Your task to perform on an android device: What's the weather today? Image 0: 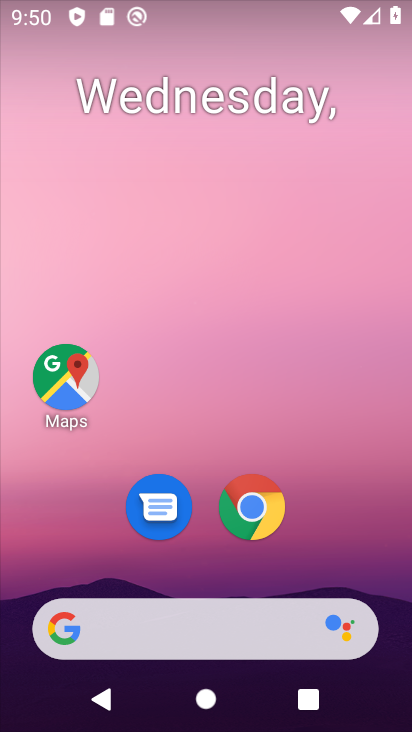
Step 0: drag from (237, 670) to (209, 197)
Your task to perform on an android device: What's the weather today? Image 1: 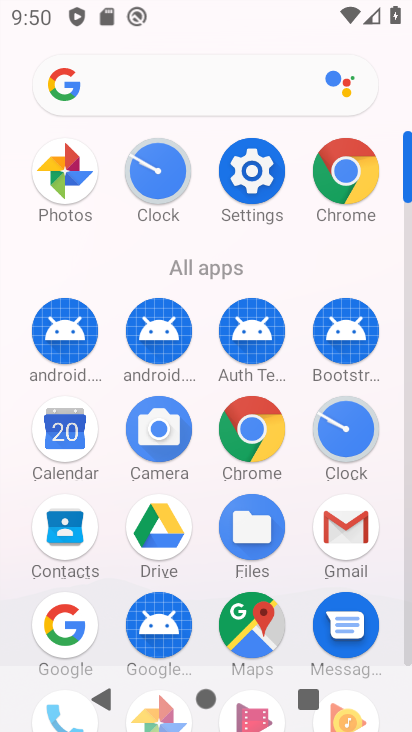
Step 1: click (178, 102)
Your task to perform on an android device: What's the weather today? Image 2: 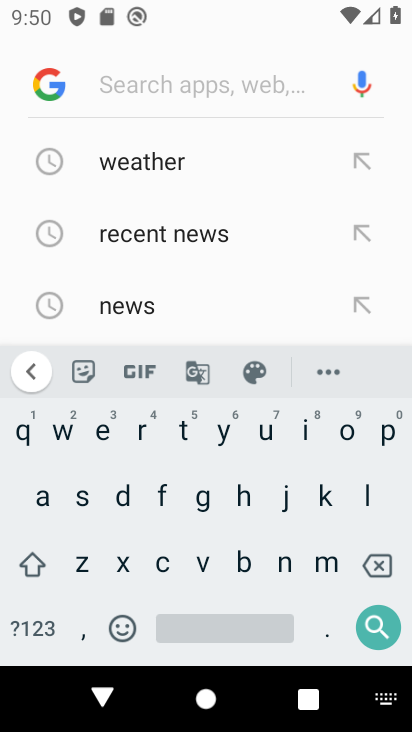
Step 2: click (135, 157)
Your task to perform on an android device: What's the weather today? Image 3: 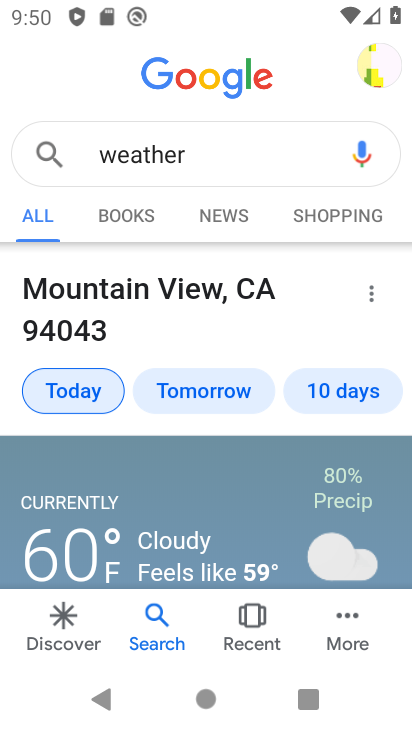
Step 3: task complete